Your task to perform on an android device: Go to location settings Image 0: 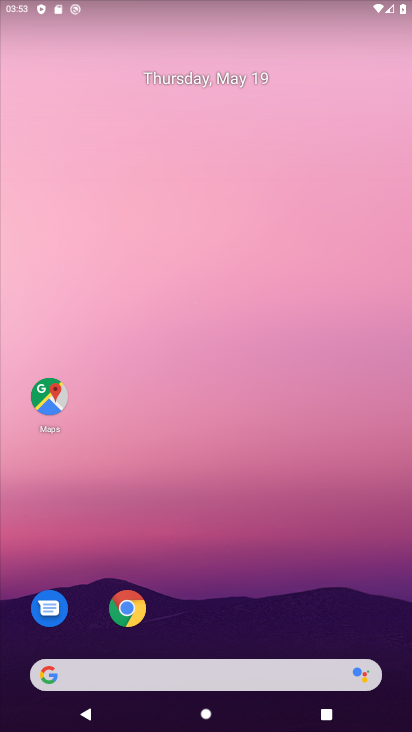
Step 0: drag from (273, 592) to (187, 140)
Your task to perform on an android device: Go to location settings Image 1: 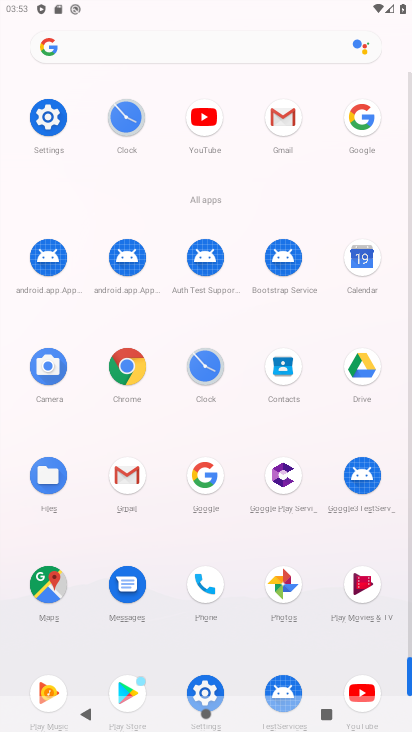
Step 1: click (48, 119)
Your task to perform on an android device: Go to location settings Image 2: 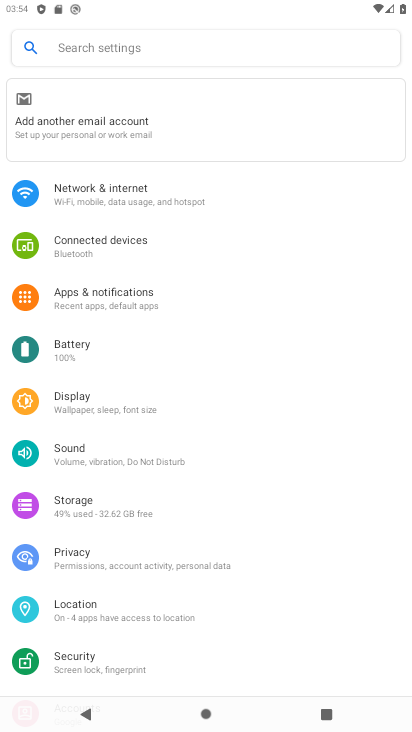
Step 2: click (105, 618)
Your task to perform on an android device: Go to location settings Image 3: 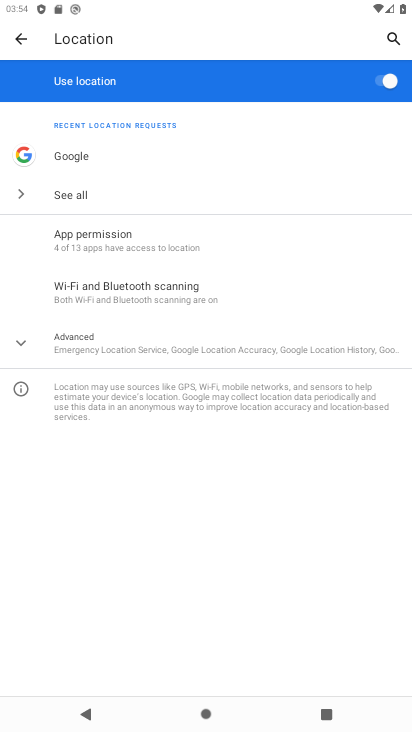
Step 3: task complete